Your task to perform on an android device: turn on javascript in the chrome app Image 0: 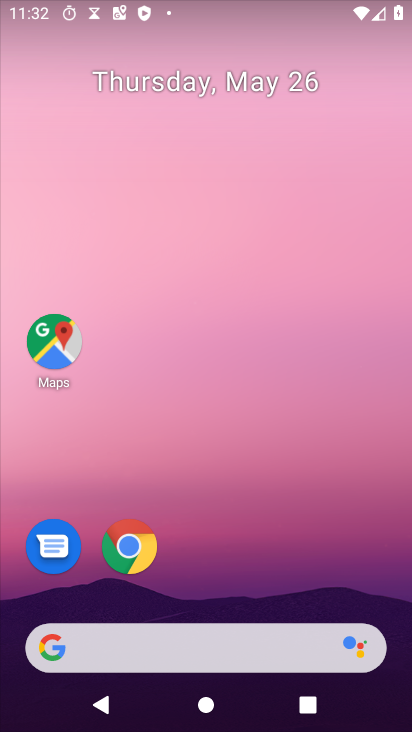
Step 0: drag from (384, 602) to (340, 135)
Your task to perform on an android device: turn on javascript in the chrome app Image 1: 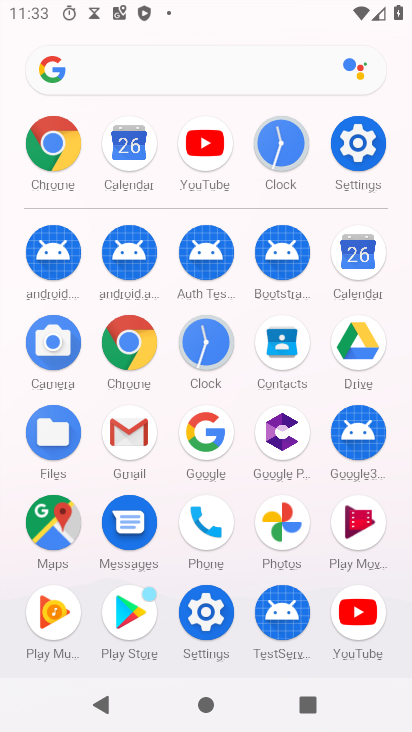
Step 1: click (127, 340)
Your task to perform on an android device: turn on javascript in the chrome app Image 2: 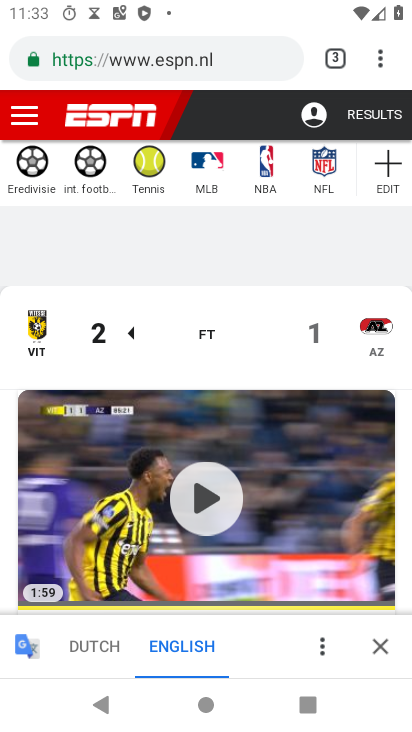
Step 2: click (387, 61)
Your task to perform on an android device: turn on javascript in the chrome app Image 3: 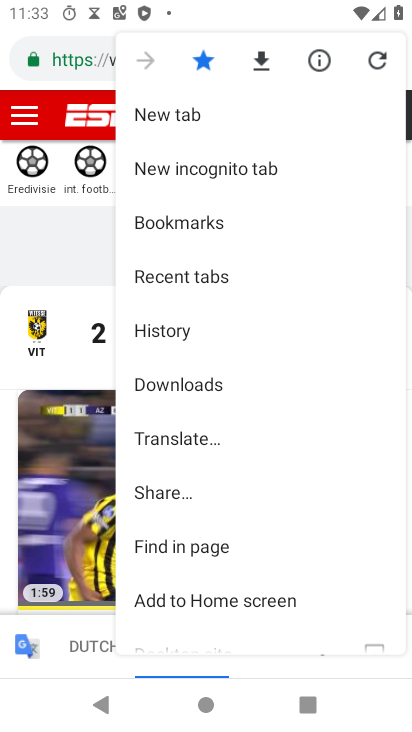
Step 3: drag from (282, 571) to (318, 266)
Your task to perform on an android device: turn on javascript in the chrome app Image 4: 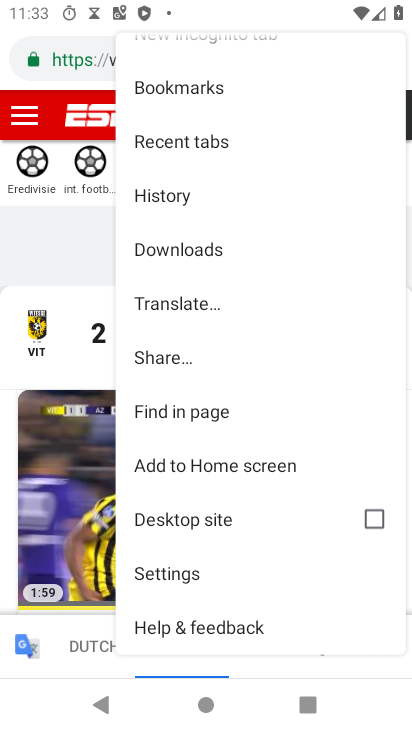
Step 4: drag from (286, 578) to (301, 294)
Your task to perform on an android device: turn on javascript in the chrome app Image 5: 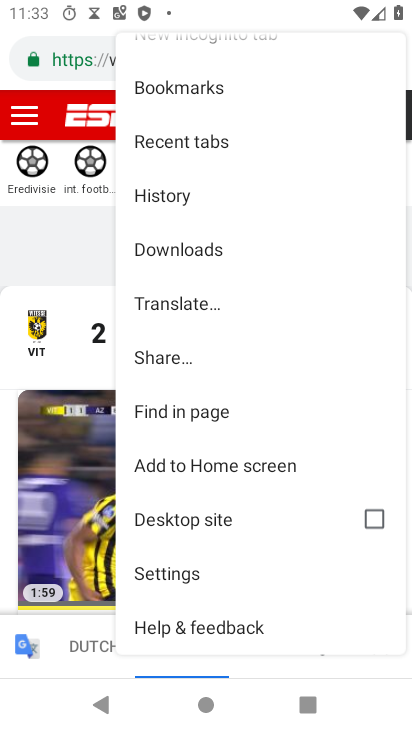
Step 5: click (213, 568)
Your task to perform on an android device: turn on javascript in the chrome app Image 6: 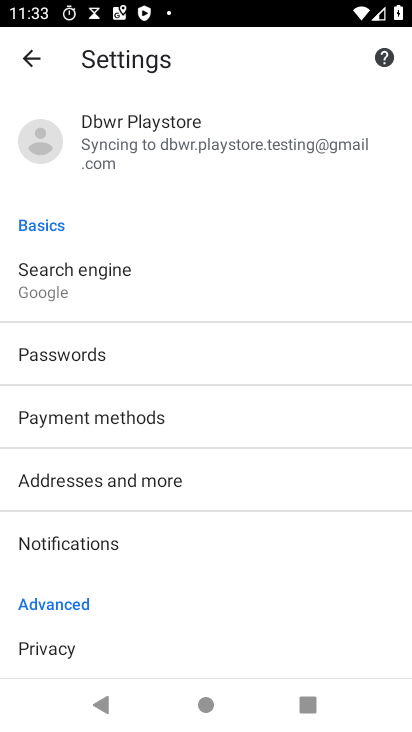
Step 6: drag from (221, 620) to (273, 262)
Your task to perform on an android device: turn on javascript in the chrome app Image 7: 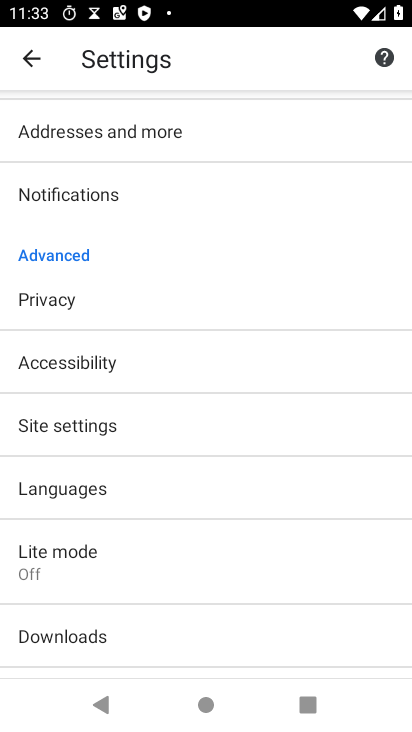
Step 7: drag from (203, 575) to (228, 378)
Your task to perform on an android device: turn on javascript in the chrome app Image 8: 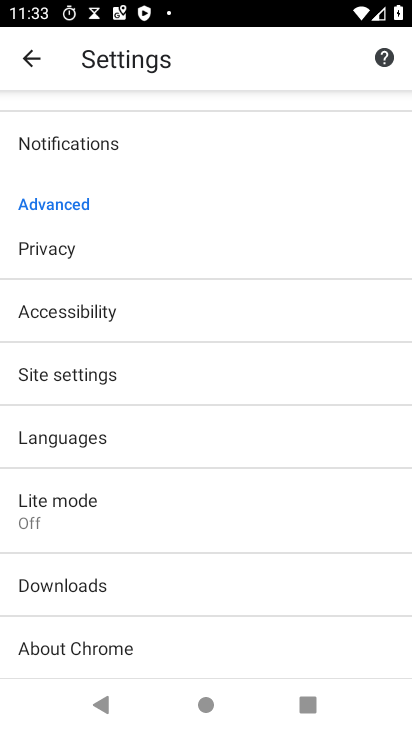
Step 8: click (228, 379)
Your task to perform on an android device: turn on javascript in the chrome app Image 9: 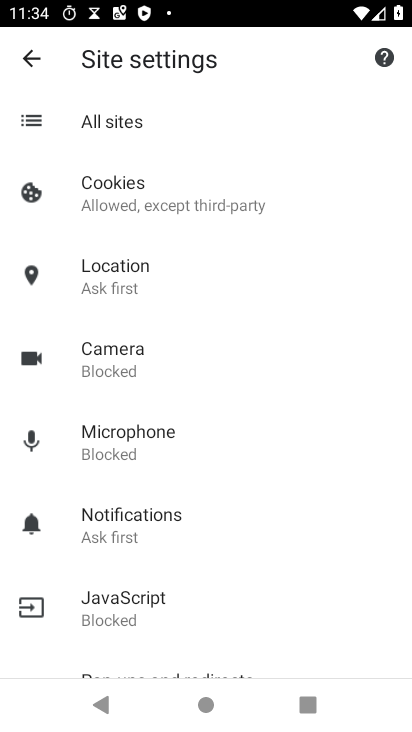
Step 9: click (185, 601)
Your task to perform on an android device: turn on javascript in the chrome app Image 10: 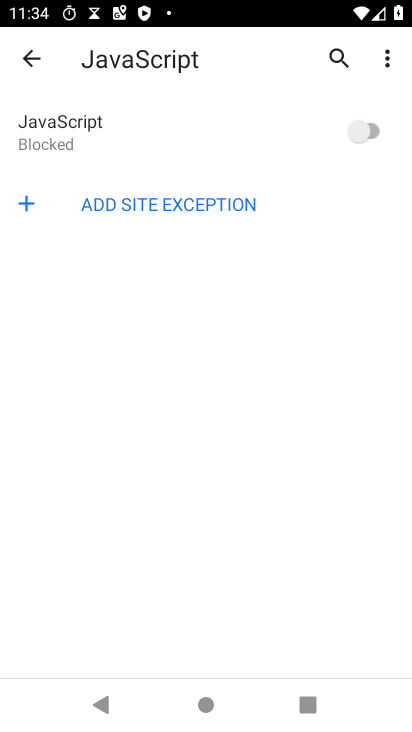
Step 10: click (368, 125)
Your task to perform on an android device: turn on javascript in the chrome app Image 11: 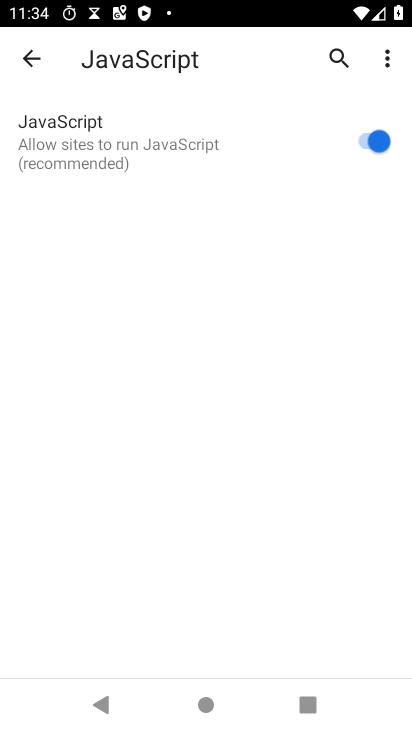
Step 11: task complete